Your task to perform on an android device: turn on airplane mode Image 0: 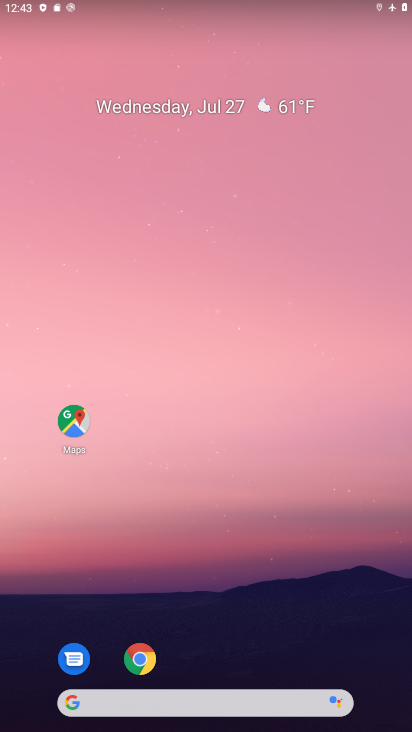
Step 0: drag from (195, 652) to (193, 210)
Your task to perform on an android device: turn on airplane mode Image 1: 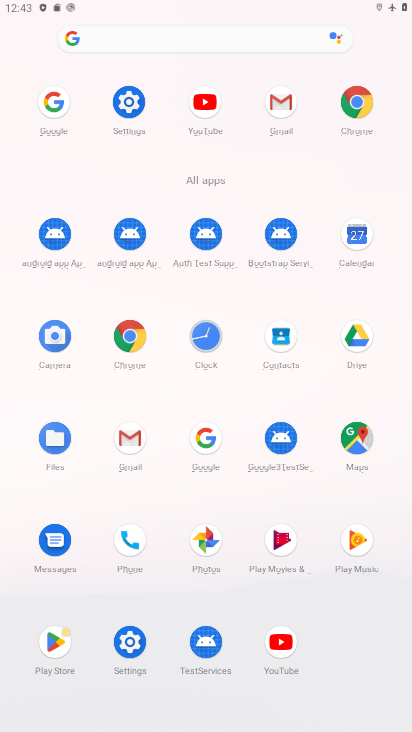
Step 1: click (121, 88)
Your task to perform on an android device: turn on airplane mode Image 2: 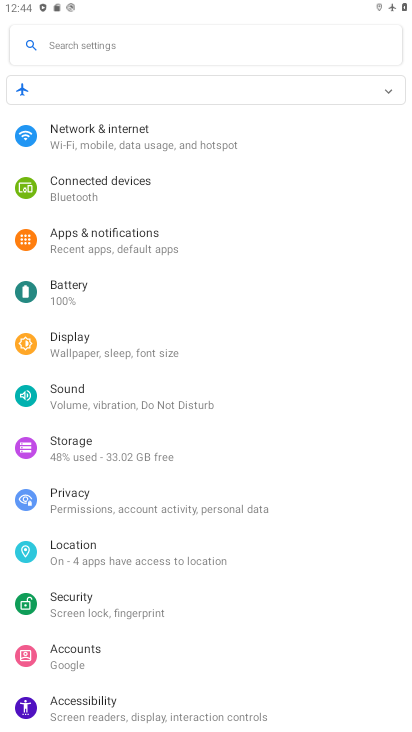
Step 2: click (147, 137)
Your task to perform on an android device: turn on airplane mode Image 3: 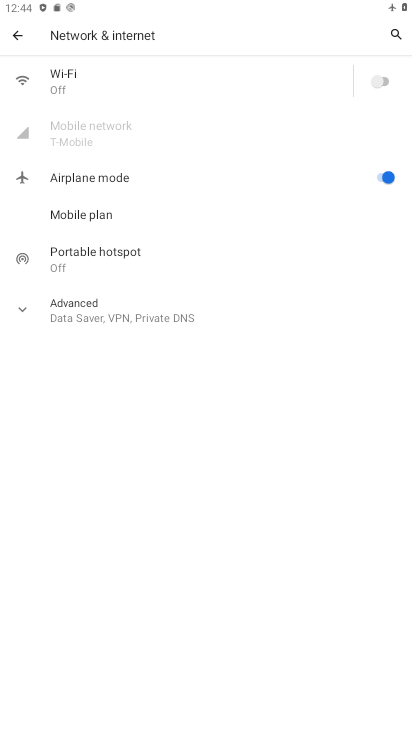
Step 3: task complete